Your task to perform on an android device: see tabs open on other devices in the chrome app Image 0: 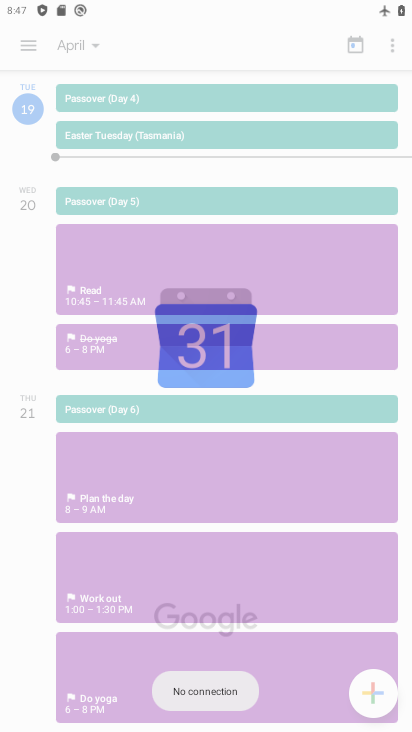
Step 0: drag from (186, 620) to (194, 118)
Your task to perform on an android device: see tabs open on other devices in the chrome app Image 1: 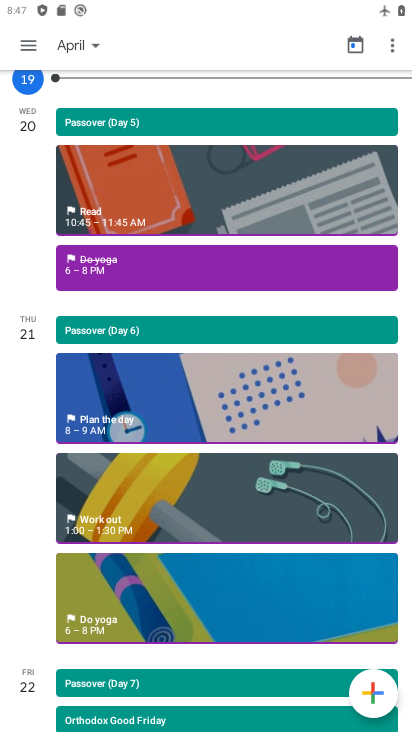
Step 1: press home button
Your task to perform on an android device: see tabs open on other devices in the chrome app Image 2: 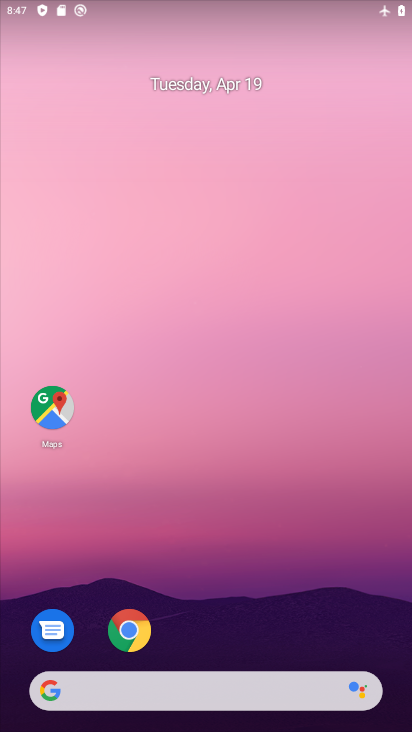
Step 2: drag from (285, 649) to (321, 168)
Your task to perform on an android device: see tabs open on other devices in the chrome app Image 3: 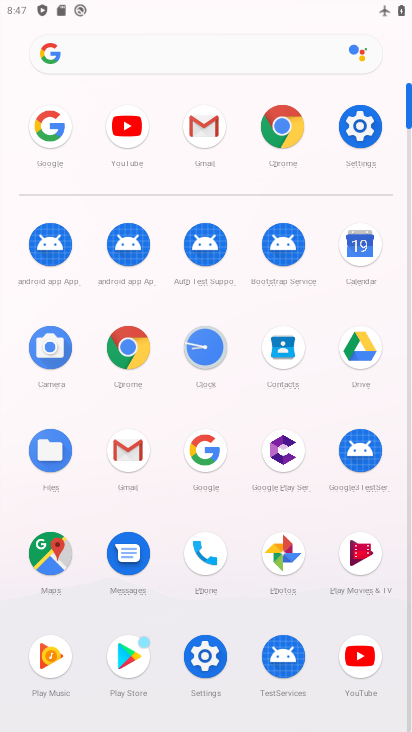
Step 3: click (288, 123)
Your task to perform on an android device: see tabs open on other devices in the chrome app Image 4: 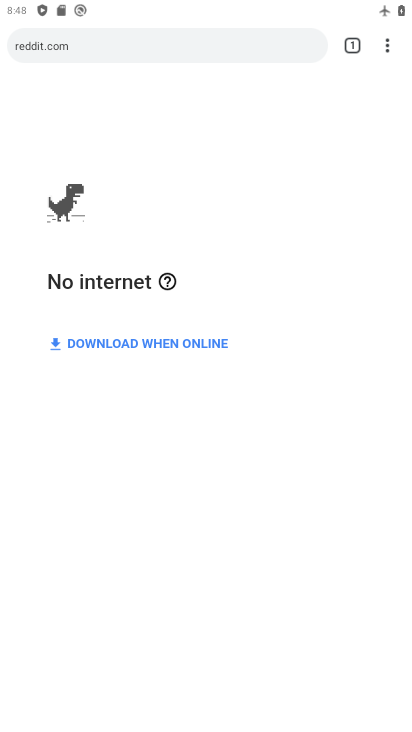
Step 4: task complete